Your task to perform on an android device: turn on showing notifications on the lock screen Image 0: 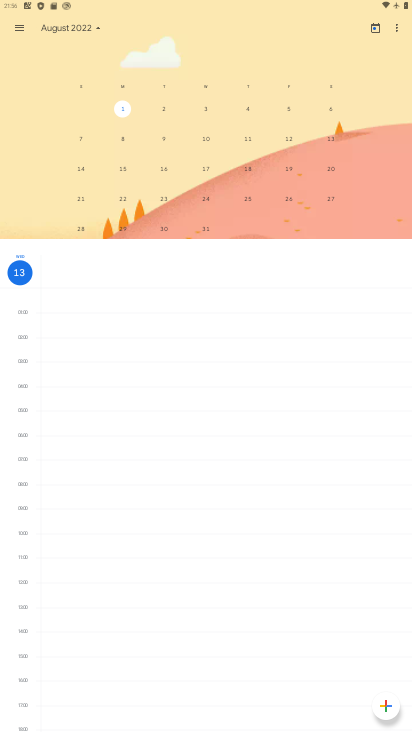
Step 0: press home button
Your task to perform on an android device: turn on showing notifications on the lock screen Image 1: 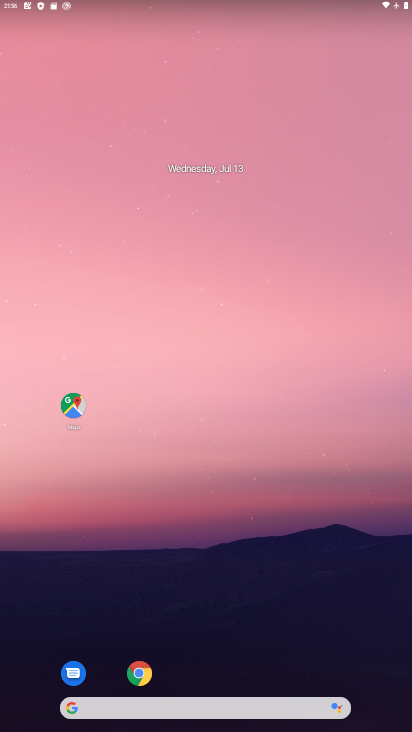
Step 1: drag from (205, 663) to (248, 165)
Your task to perform on an android device: turn on showing notifications on the lock screen Image 2: 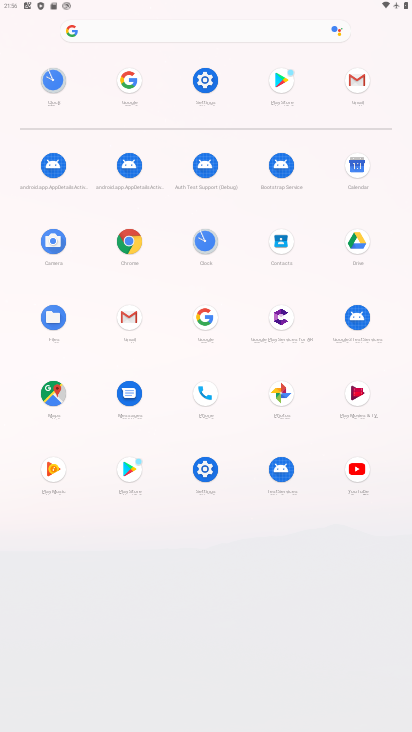
Step 2: click (209, 85)
Your task to perform on an android device: turn on showing notifications on the lock screen Image 3: 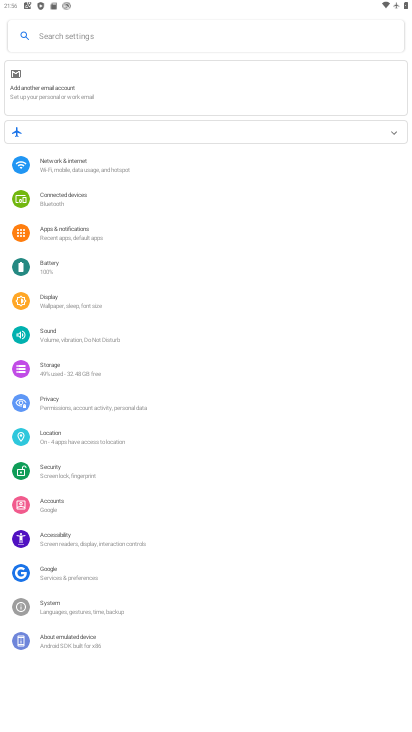
Step 3: click (81, 238)
Your task to perform on an android device: turn on showing notifications on the lock screen Image 4: 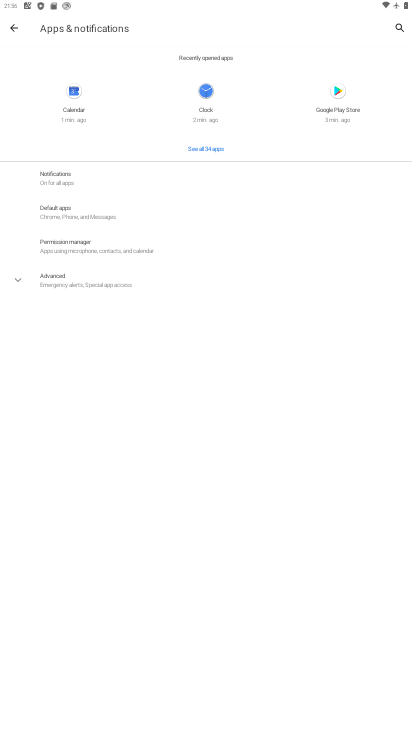
Step 4: click (65, 179)
Your task to perform on an android device: turn on showing notifications on the lock screen Image 5: 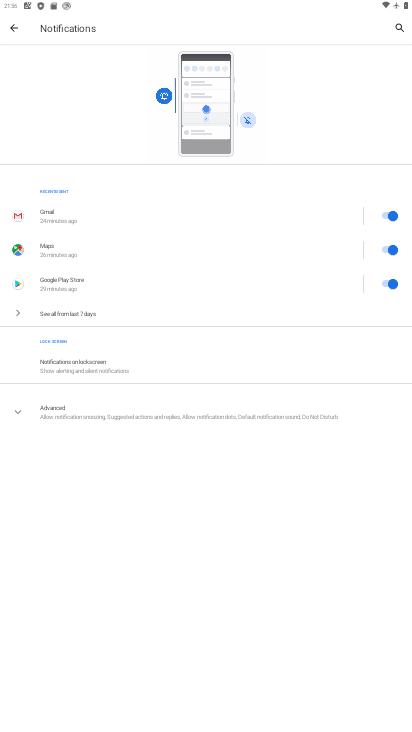
Step 5: click (84, 371)
Your task to perform on an android device: turn on showing notifications on the lock screen Image 6: 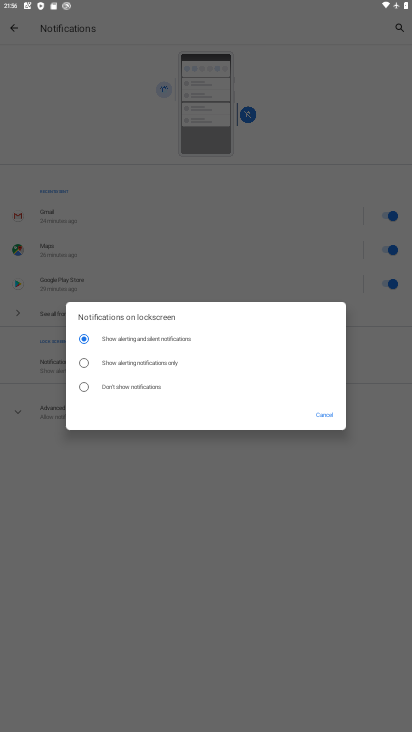
Step 6: task complete